Your task to perform on an android device: Search for vegetarian restaurants on Maps Image 0: 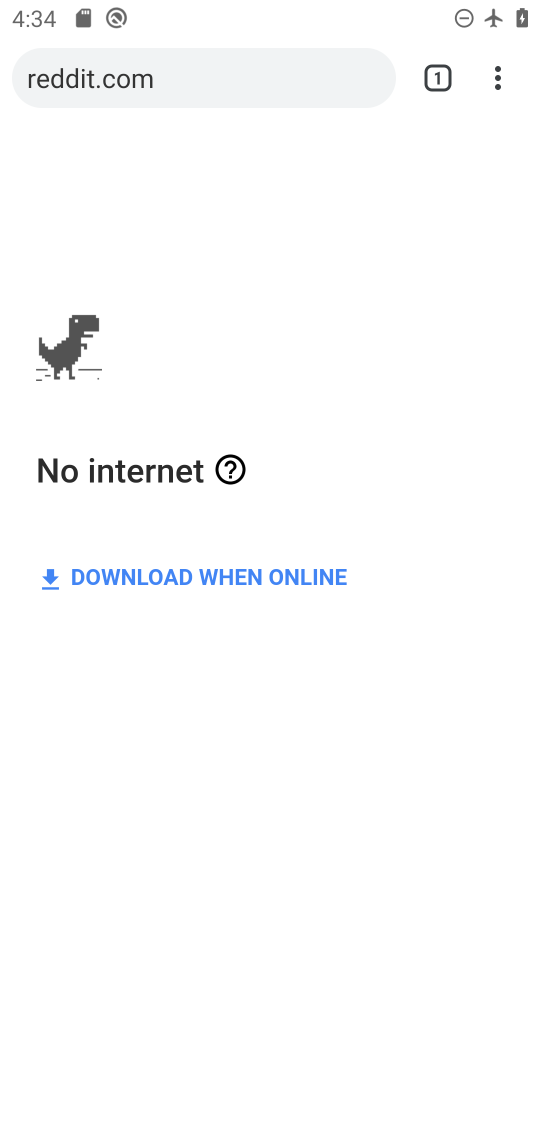
Step 0: press home button
Your task to perform on an android device: Search for vegetarian restaurants on Maps Image 1: 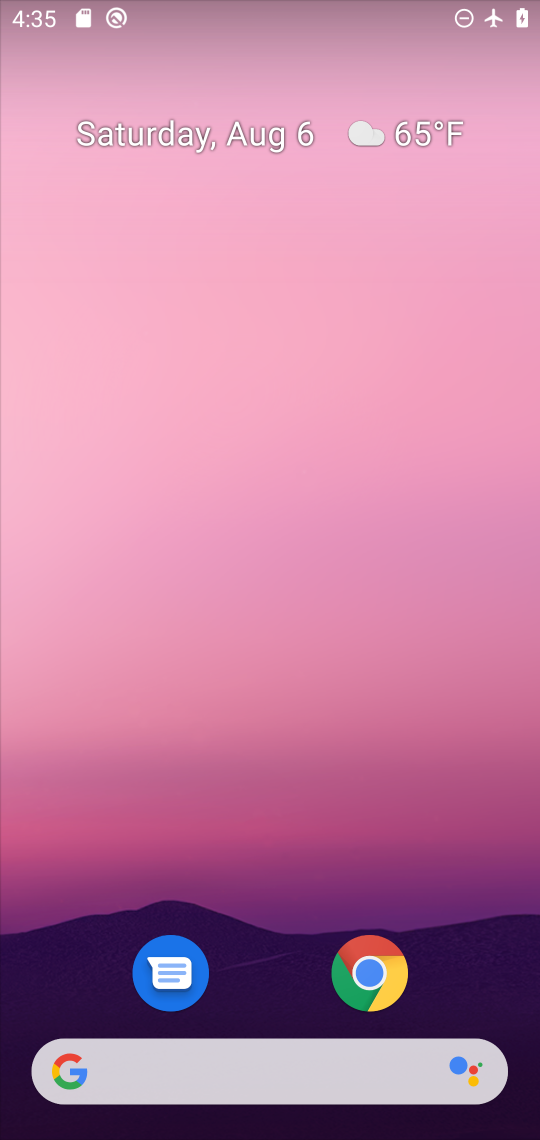
Step 1: drag from (253, 851) to (336, 57)
Your task to perform on an android device: Search for vegetarian restaurants on Maps Image 2: 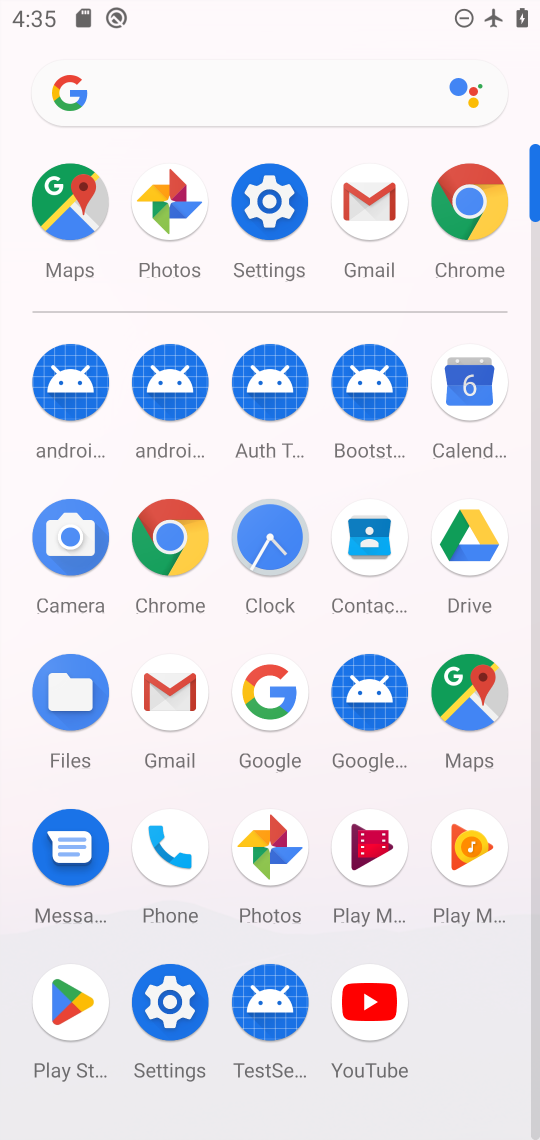
Step 2: click (465, 700)
Your task to perform on an android device: Search for vegetarian restaurants on Maps Image 3: 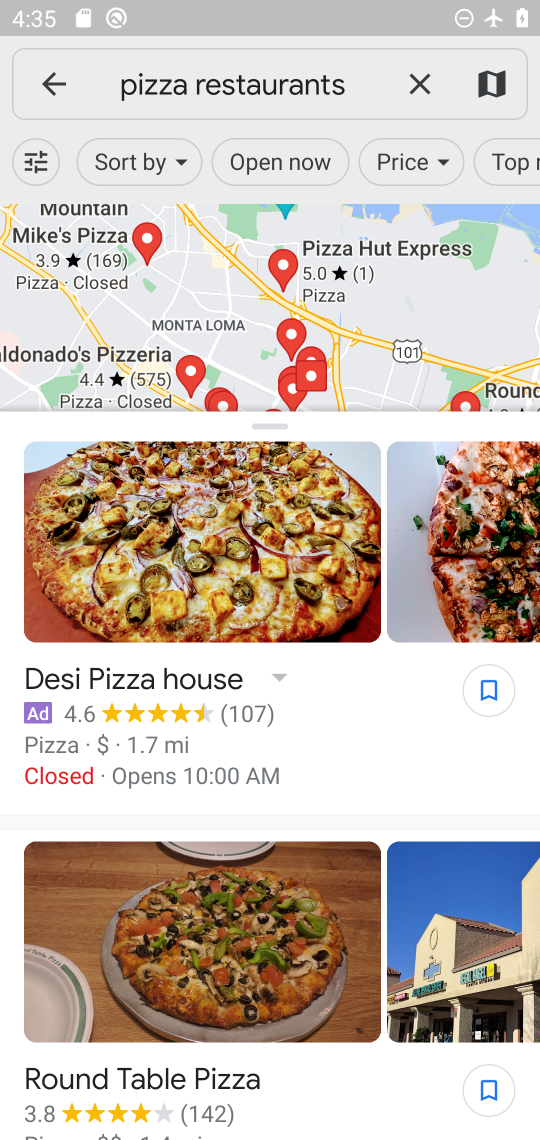
Step 3: click (429, 90)
Your task to perform on an android device: Search for vegetarian restaurants on Maps Image 4: 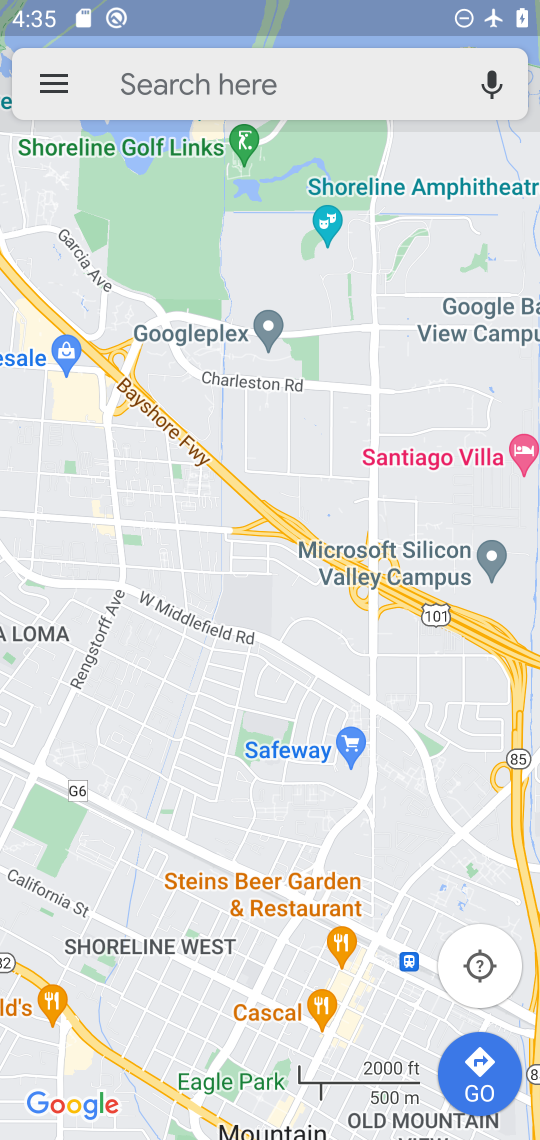
Step 4: click (303, 97)
Your task to perform on an android device: Search for vegetarian restaurants on Maps Image 5: 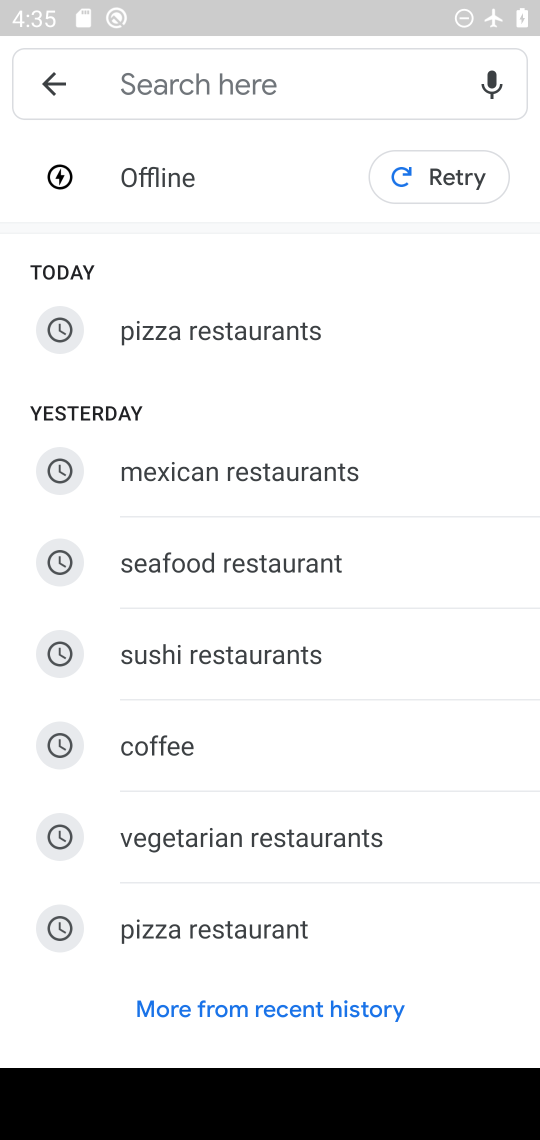
Step 5: click (289, 852)
Your task to perform on an android device: Search for vegetarian restaurants on Maps Image 6: 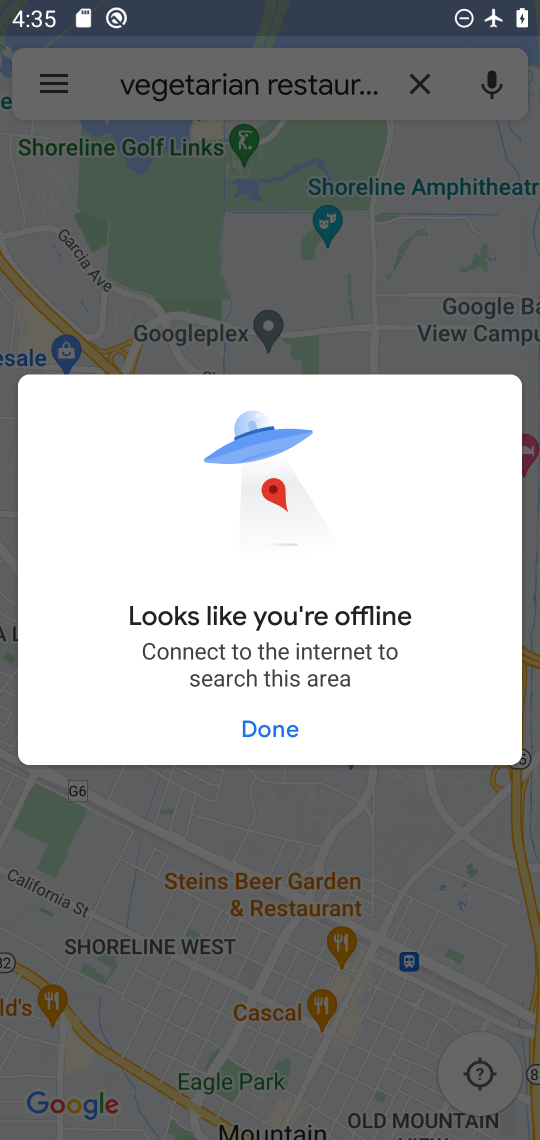
Step 6: task complete